Your task to perform on an android device: move an email to a new category in the gmail app Image 0: 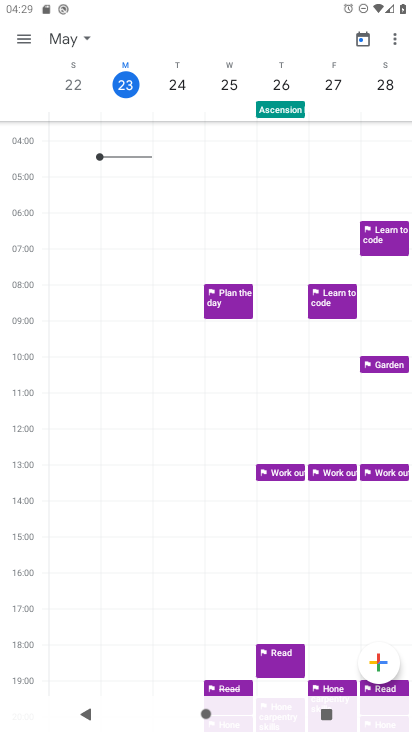
Step 0: press home button
Your task to perform on an android device: move an email to a new category in the gmail app Image 1: 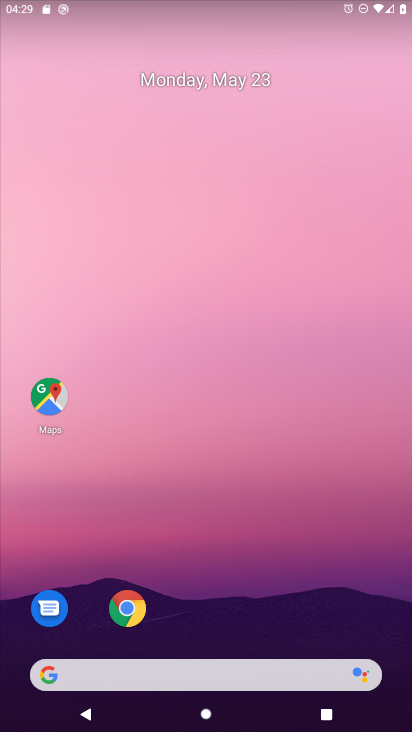
Step 1: drag from (237, 603) to (211, 195)
Your task to perform on an android device: move an email to a new category in the gmail app Image 2: 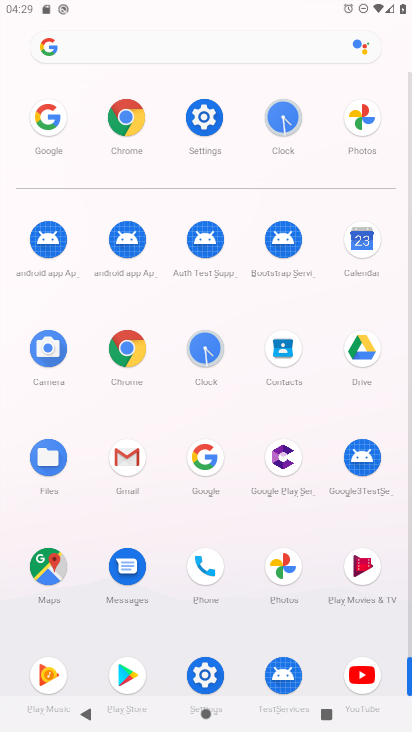
Step 2: click (124, 455)
Your task to perform on an android device: move an email to a new category in the gmail app Image 3: 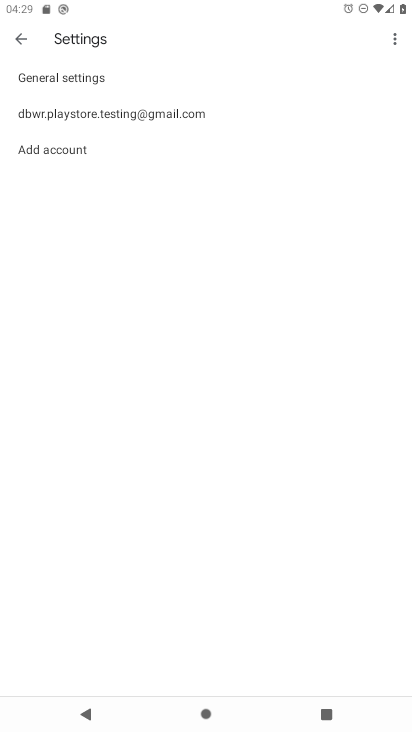
Step 3: click (22, 40)
Your task to perform on an android device: move an email to a new category in the gmail app Image 4: 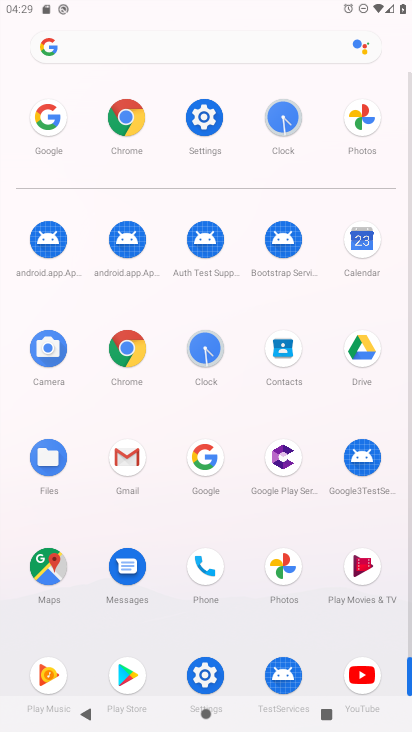
Step 4: click (125, 461)
Your task to perform on an android device: move an email to a new category in the gmail app Image 5: 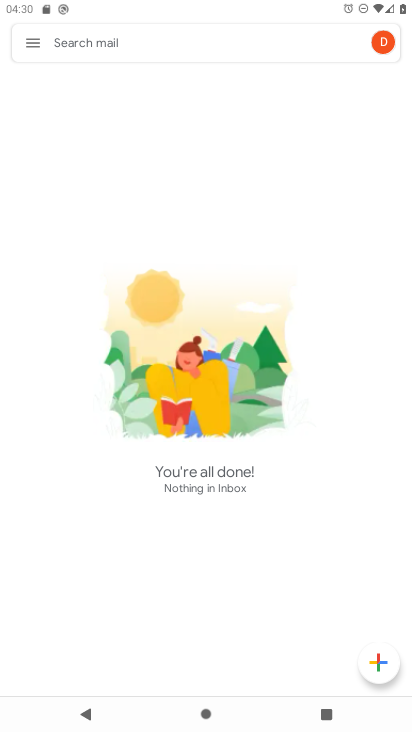
Step 5: click (34, 32)
Your task to perform on an android device: move an email to a new category in the gmail app Image 6: 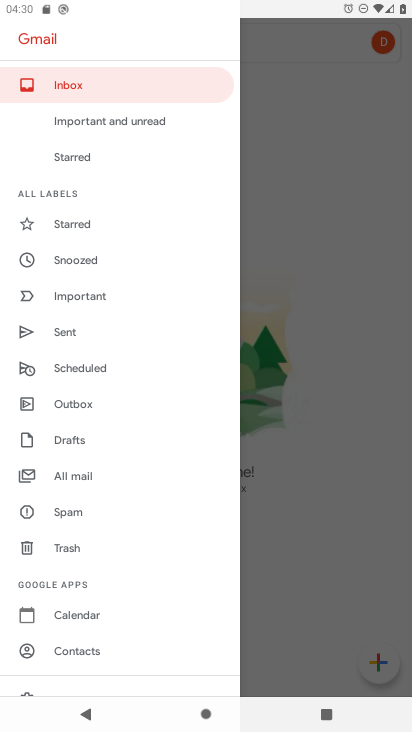
Step 6: click (76, 476)
Your task to perform on an android device: move an email to a new category in the gmail app Image 7: 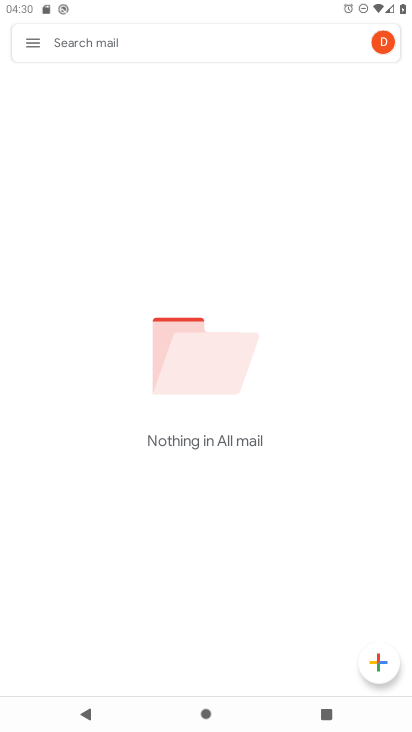
Step 7: click (29, 41)
Your task to perform on an android device: move an email to a new category in the gmail app Image 8: 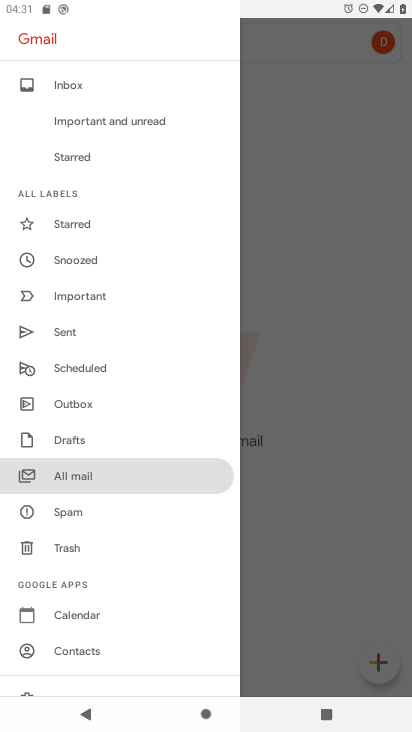
Step 8: click (108, 484)
Your task to perform on an android device: move an email to a new category in the gmail app Image 9: 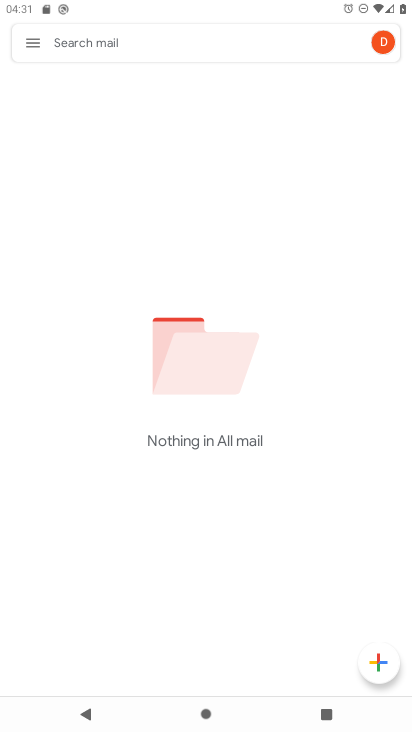
Step 9: task complete